Your task to perform on an android device: Open the phone app and click the voicemail tab. Image 0: 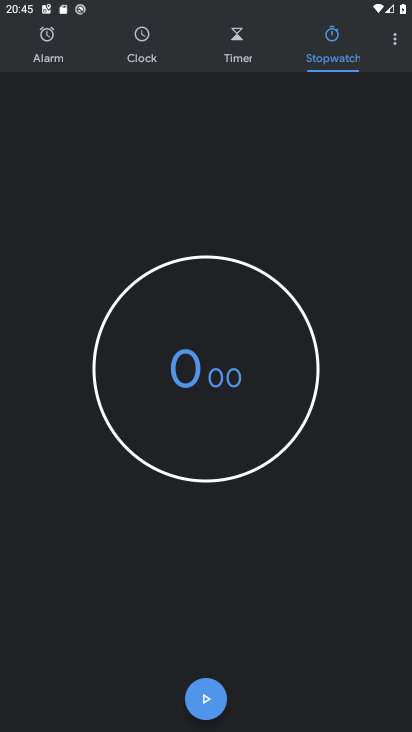
Step 0: press home button
Your task to perform on an android device: Open the phone app and click the voicemail tab. Image 1: 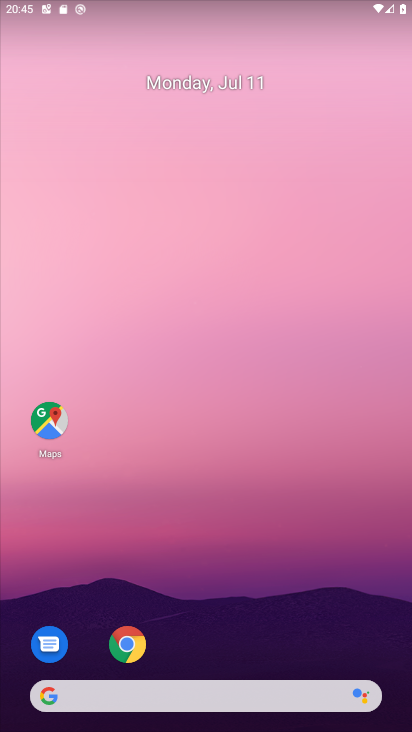
Step 1: drag from (236, 624) to (223, 205)
Your task to perform on an android device: Open the phone app and click the voicemail tab. Image 2: 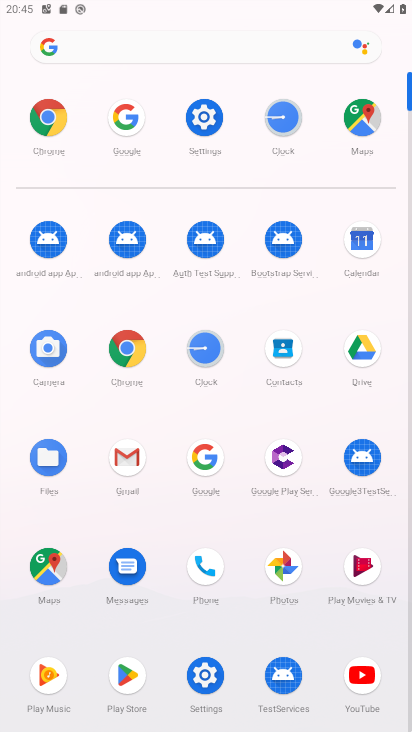
Step 2: click (211, 567)
Your task to perform on an android device: Open the phone app and click the voicemail tab. Image 3: 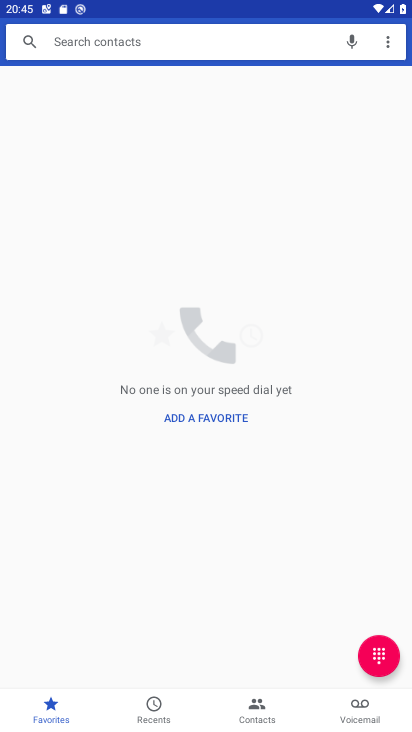
Step 3: click (360, 700)
Your task to perform on an android device: Open the phone app and click the voicemail tab. Image 4: 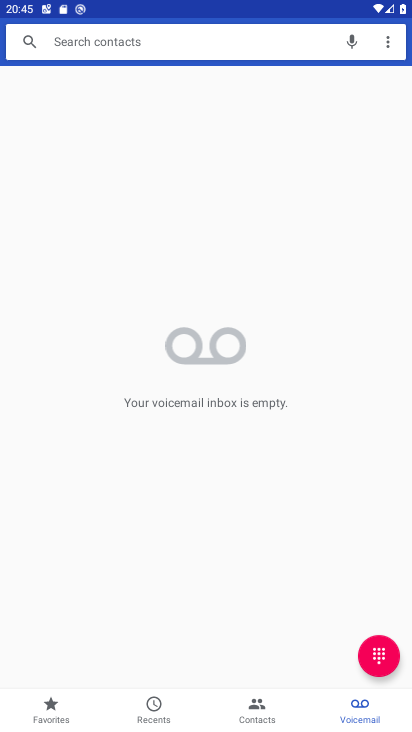
Step 4: task complete